Your task to perform on an android device: add a contact in the contacts app Image 0: 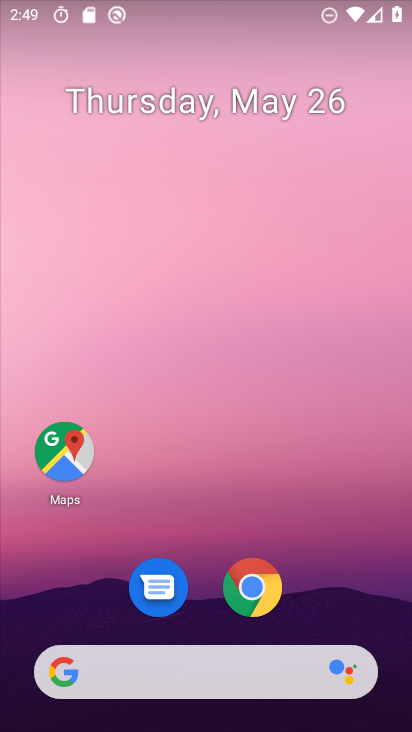
Step 0: drag from (312, 543) to (307, 164)
Your task to perform on an android device: add a contact in the contacts app Image 1: 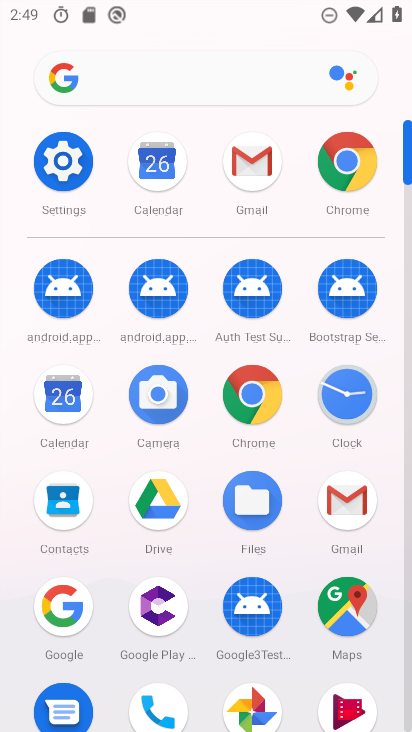
Step 1: click (66, 502)
Your task to perform on an android device: add a contact in the contacts app Image 2: 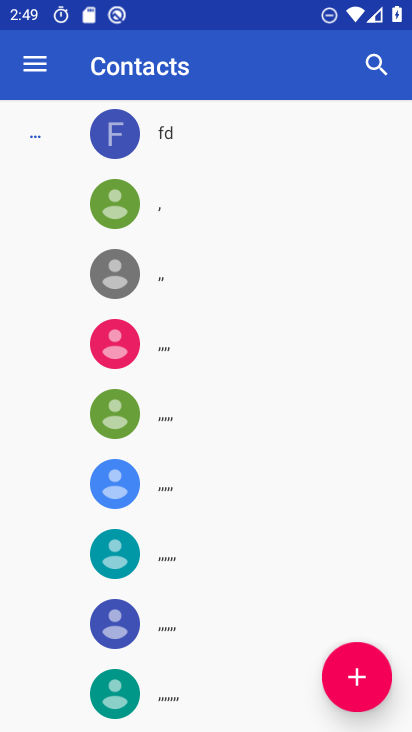
Step 2: click (355, 672)
Your task to perform on an android device: add a contact in the contacts app Image 3: 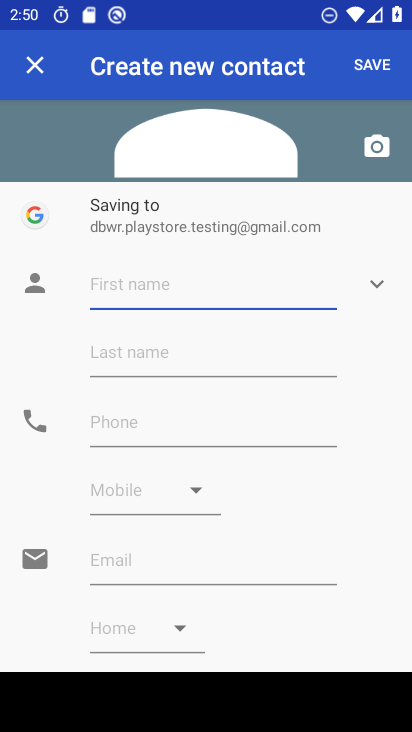
Step 3: type "amit"
Your task to perform on an android device: add a contact in the contacts app Image 4: 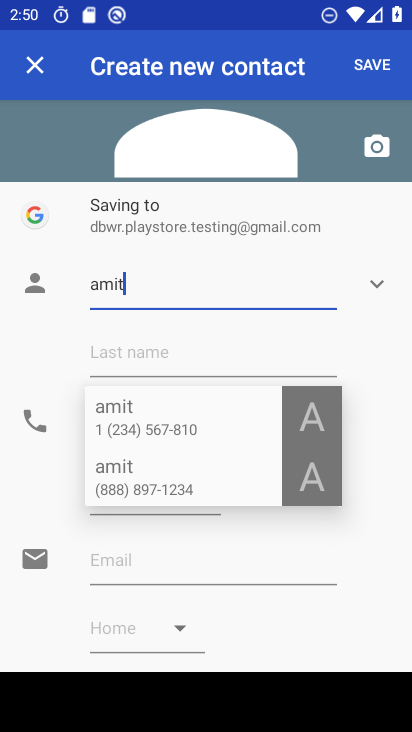
Step 4: type "kml"
Your task to perform on an android device: add a contact in the contacts app Image 5: 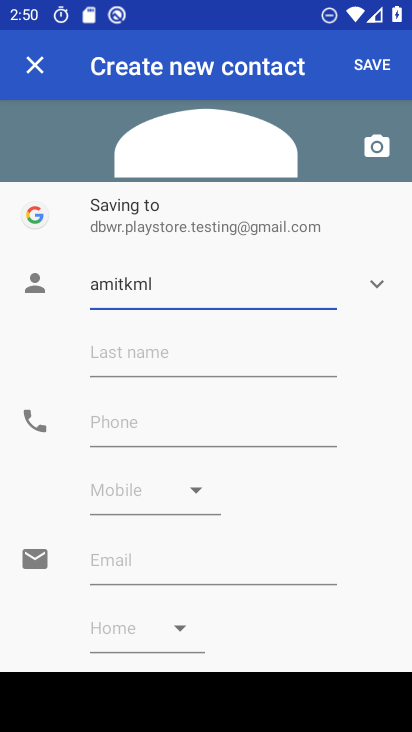
Step 5: click (375, 68)
Your task to perform on an android device: add a contact in the contacts app Image 6: 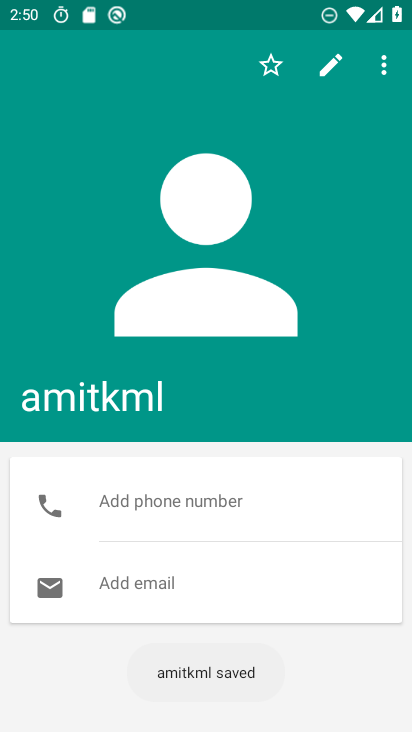
Step 6: task complete